Your task to perform on an android device: empty trash in the gmail app Image 0: 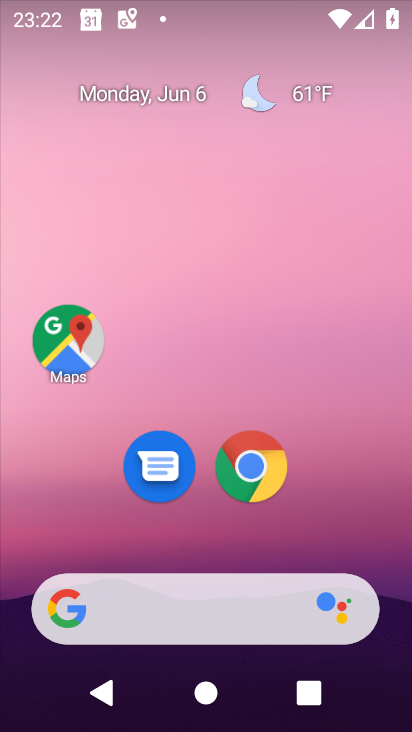
Step 0: press home button
Your task to perform on an android device: empty trash in the gmail app Image 1: 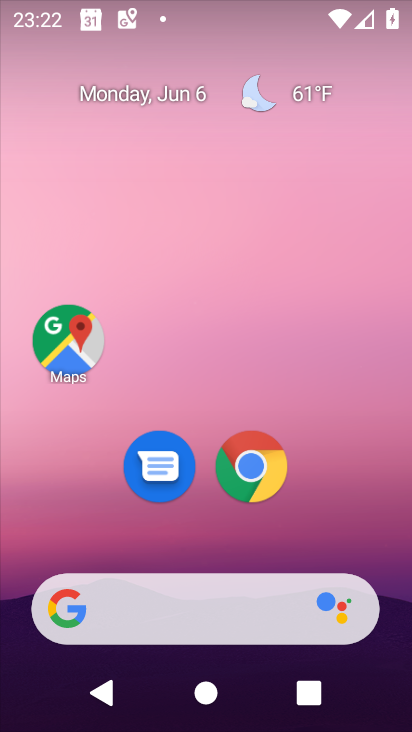
Step 1: drag from (358, 562) to (313, 10)
Your task to perform on an android device: empty trash in the gmail app Image 2: 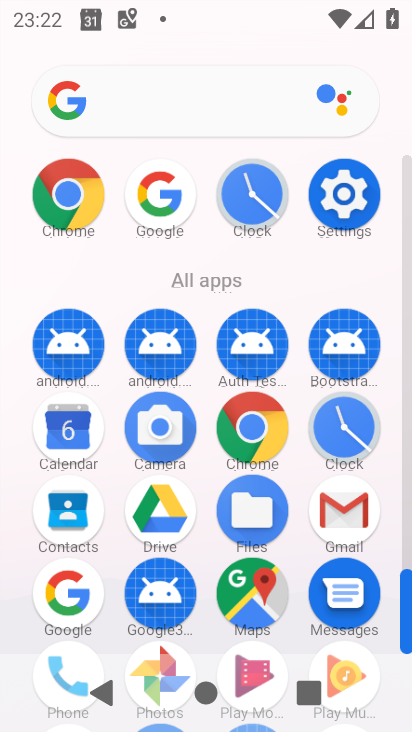
Step 2: click (337, 177)
Your task to perform on an android device: empty trash in the gmail app Image 3: 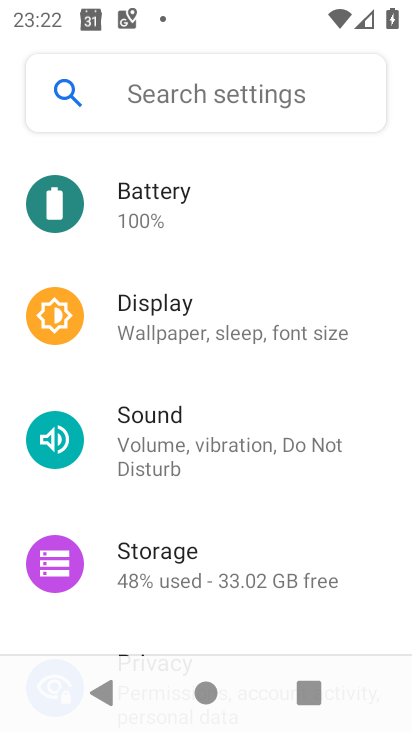
Step 3: press home button
Your task to perform on an android device: empty trash in the gmail app Image 4: 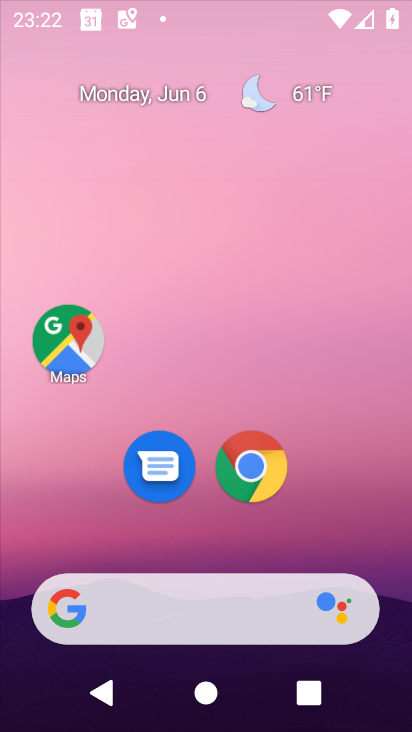
Step 4: drag from (257, 535) to (248, 4)
Your task to perform on an android device: empty trash in the gmail app Image 5: 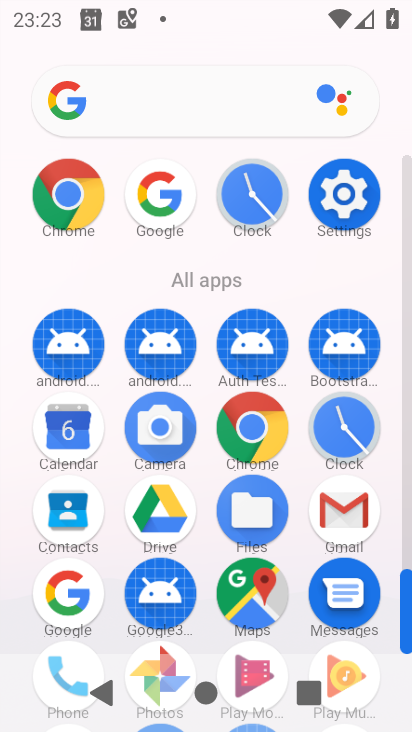
Step 5: click (322, 542)
Your task to perform on an android device: empty trash in the gmail app Image 6: 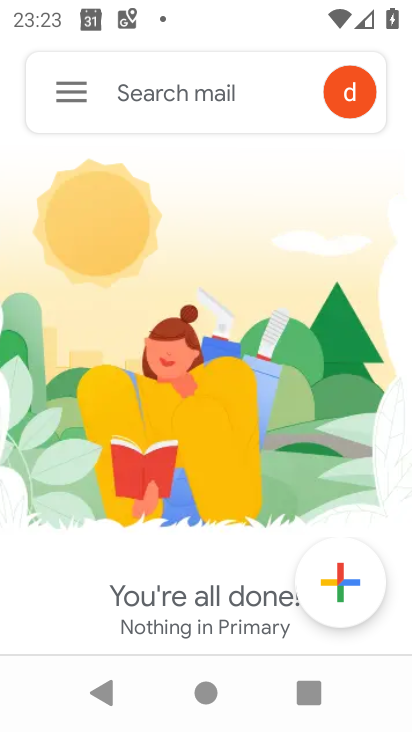
Step 6: click (80, 87)
Your task to perform on an android device: empty trash in the gmail app Image 7: 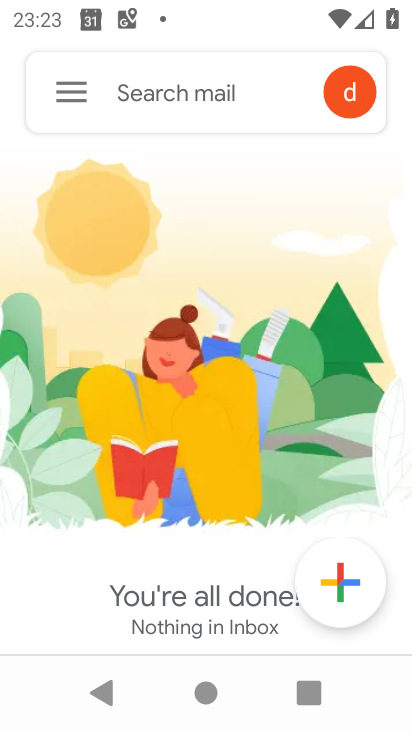
Step 7: click (80, 87)
Your task to perform on an android device: empty trash in the gmail app Image 8: 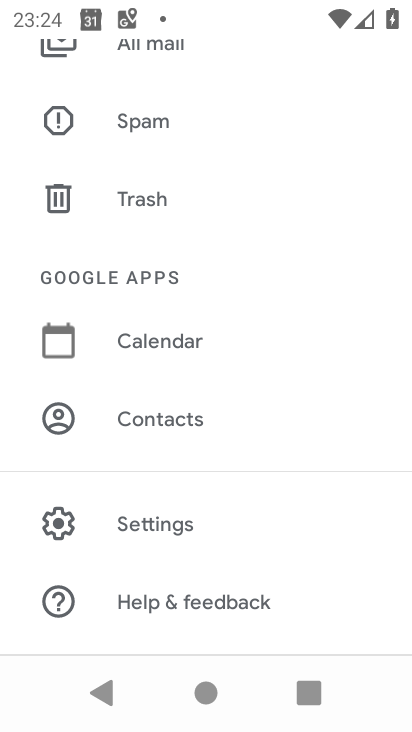
Step 8: click (156, 202)
Your task to perform on an android device: empty trash in the gmail app Image 9: 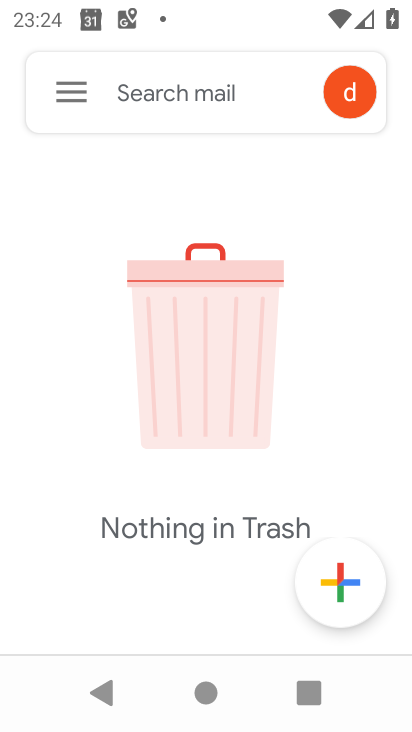
Step 9: task complete